Your task to perform on an android device: Search for pizza restaurants on Maps Image 0: 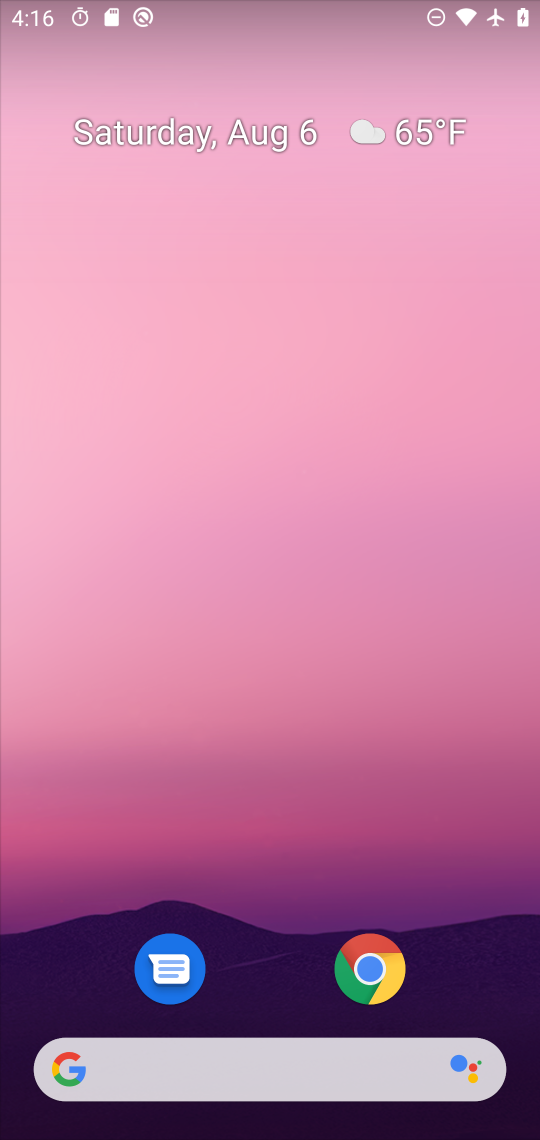
Step 0: press home button
Your task to perform on an android device: Search for pizza restaurants on Maps Image 1: 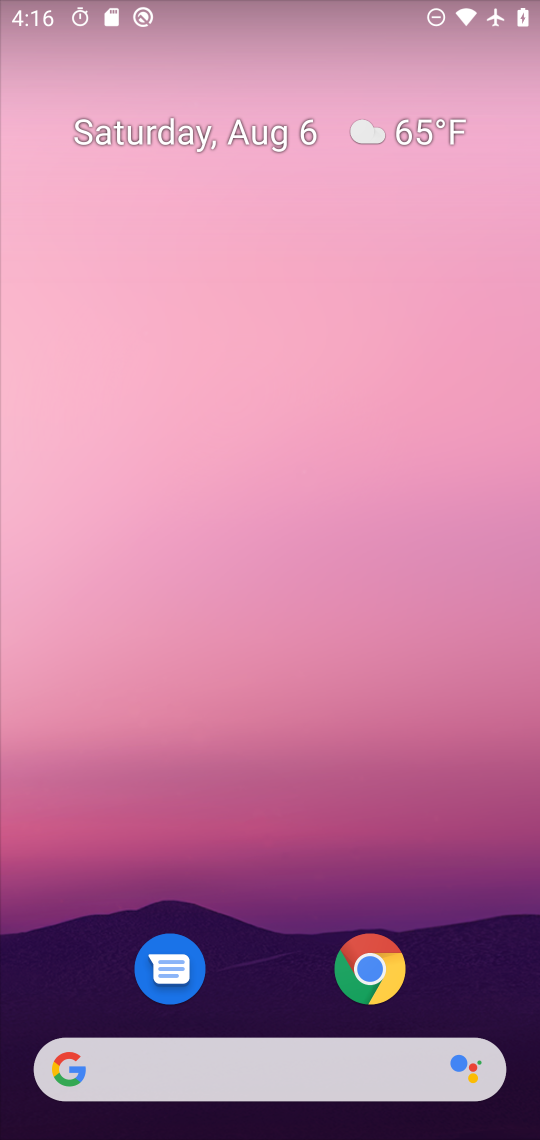
Step 1: click (83, 1062)
Your task to perform on an android device: Search for pizza restaurants on Maps Image 2: 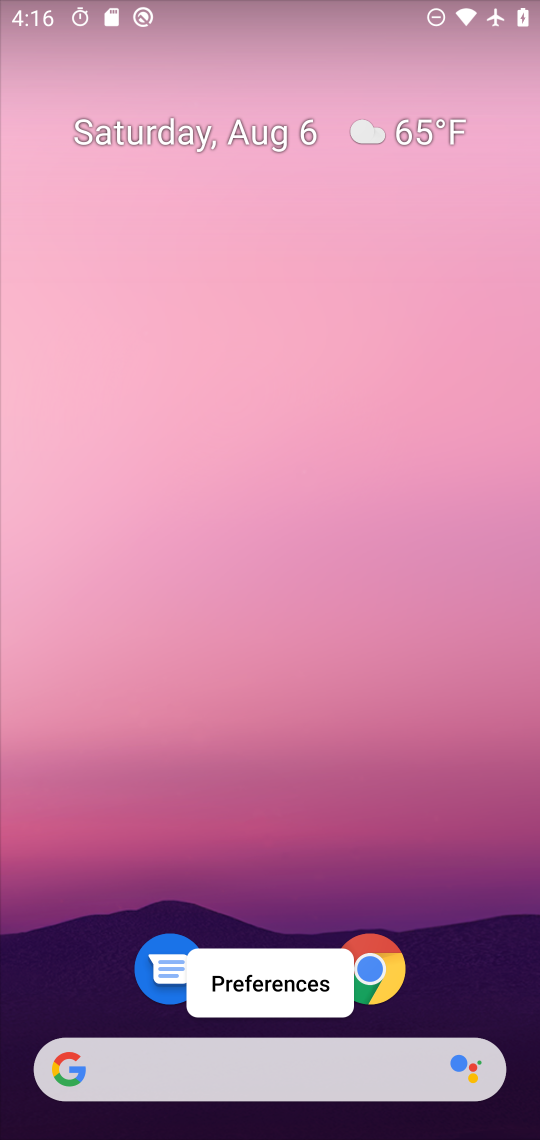
Step 2: click (62, 1064)
Your task to perform on an android device: Search for pizza restaurants on Maps Image 3: 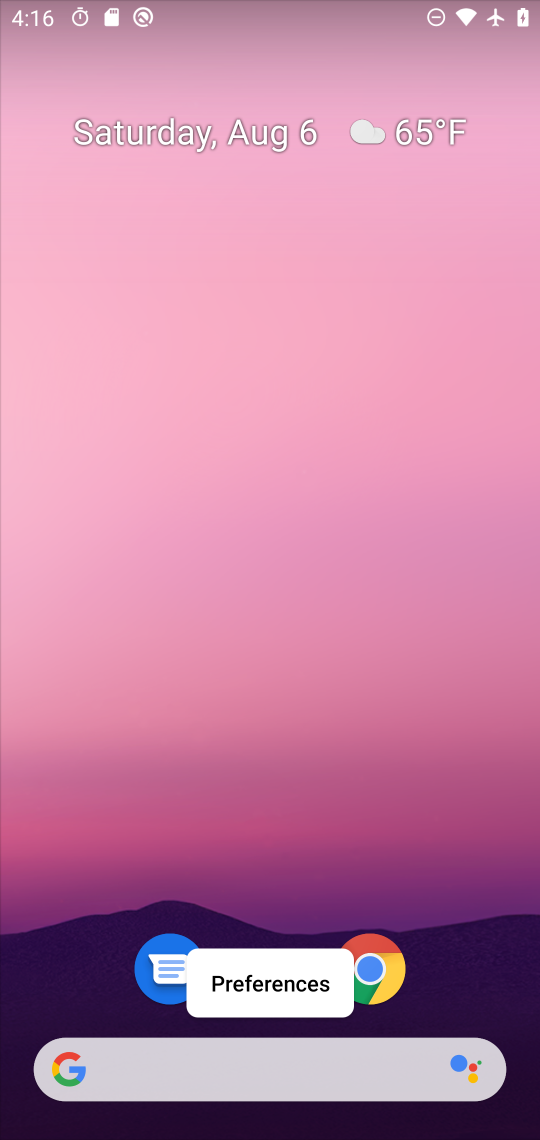
Step 3: click (62, 1068)
Your task to perform on an android device: Search for pizza restaurants on Maps Image 4: 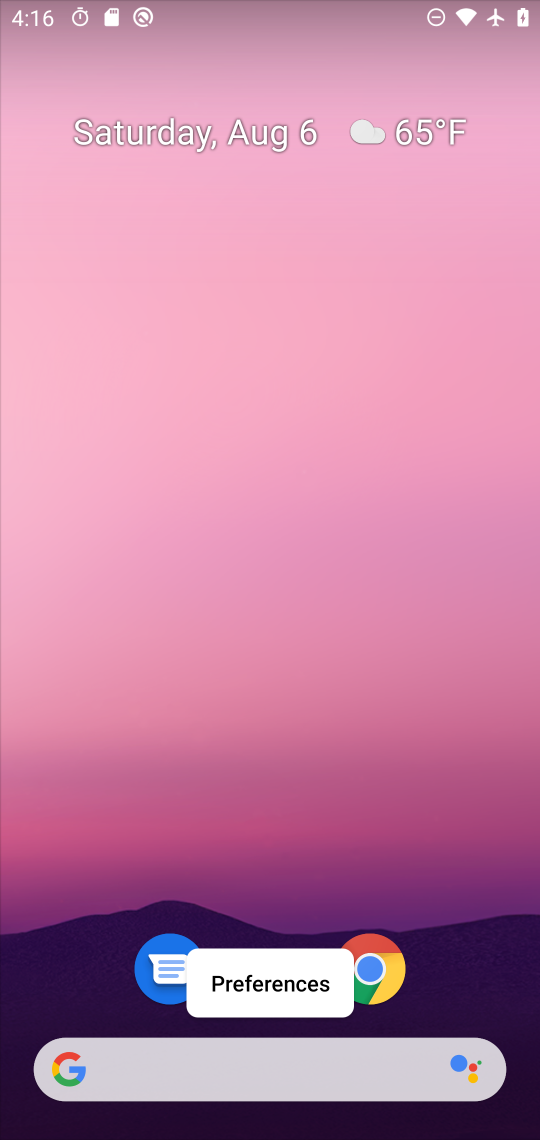
Step 4: click (67, 1078)
Your task to perform on an android device: Search for pizza restaurants on Maps Image 5: 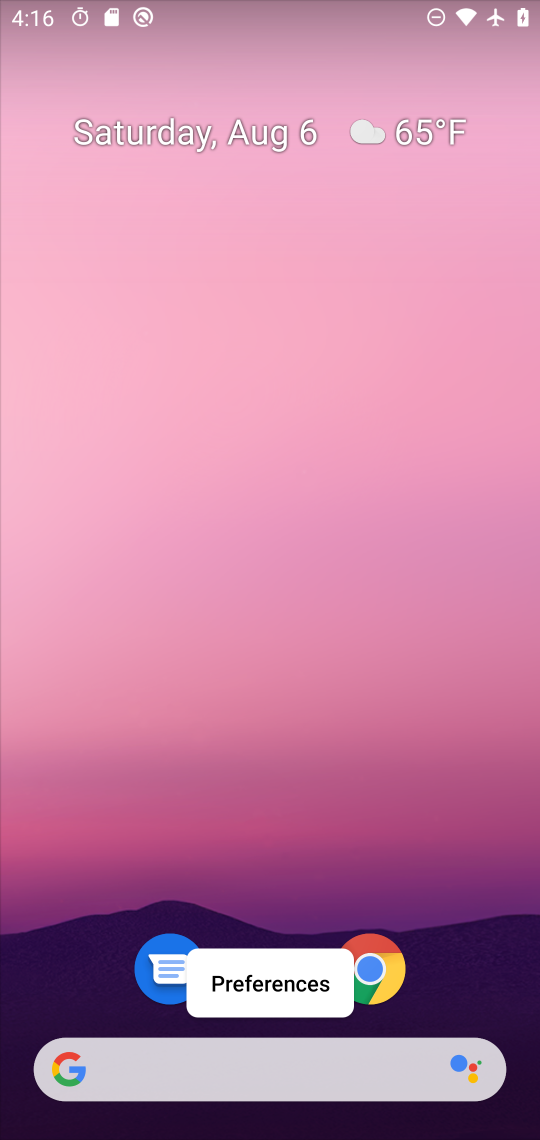
Step 5: click (69, 1078)
Your task to perform on an android device: Search for pizza restaurants on Maps Image 6: 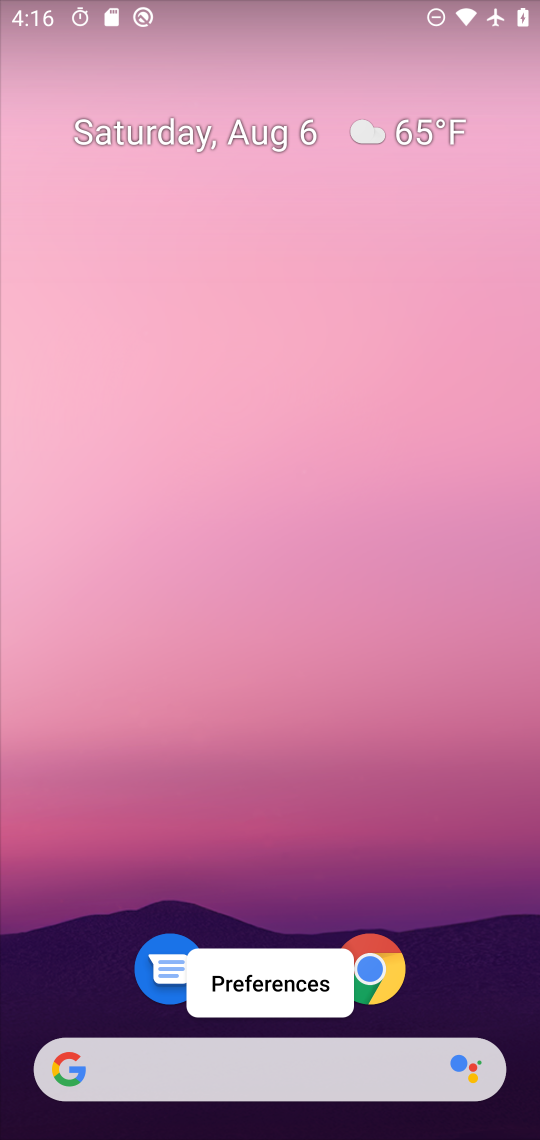
Step 6: drag from (278, 924) to (284, 204)
Your task to perform on an android device: Search for pizza restaurants on Maps Image 7: 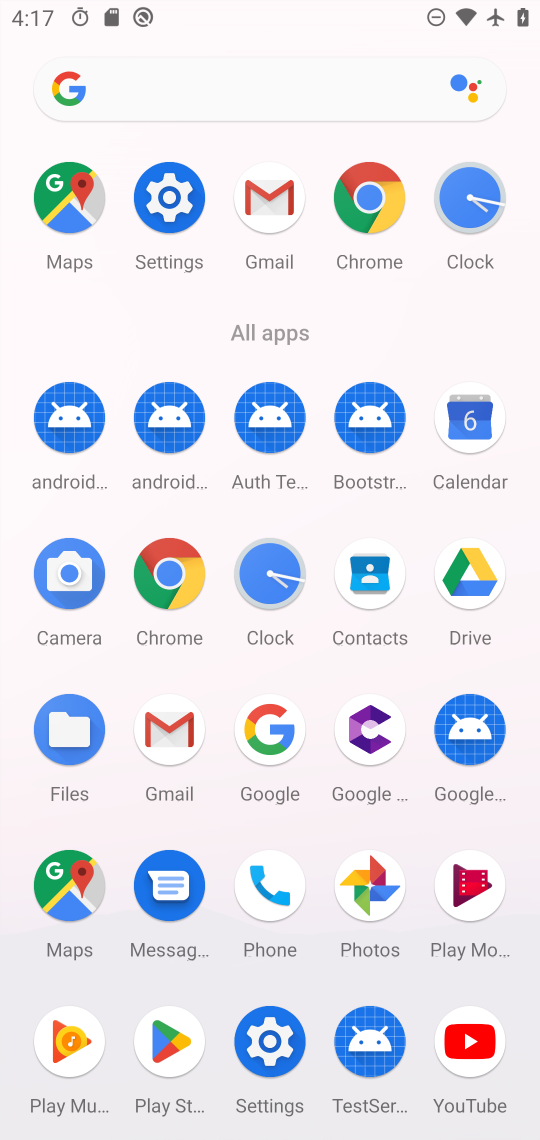
Step 7: drag from (220, 969) to (313, 381)
Your task to perform on an android device: Search for pizza restaurants on Maps Image 8: 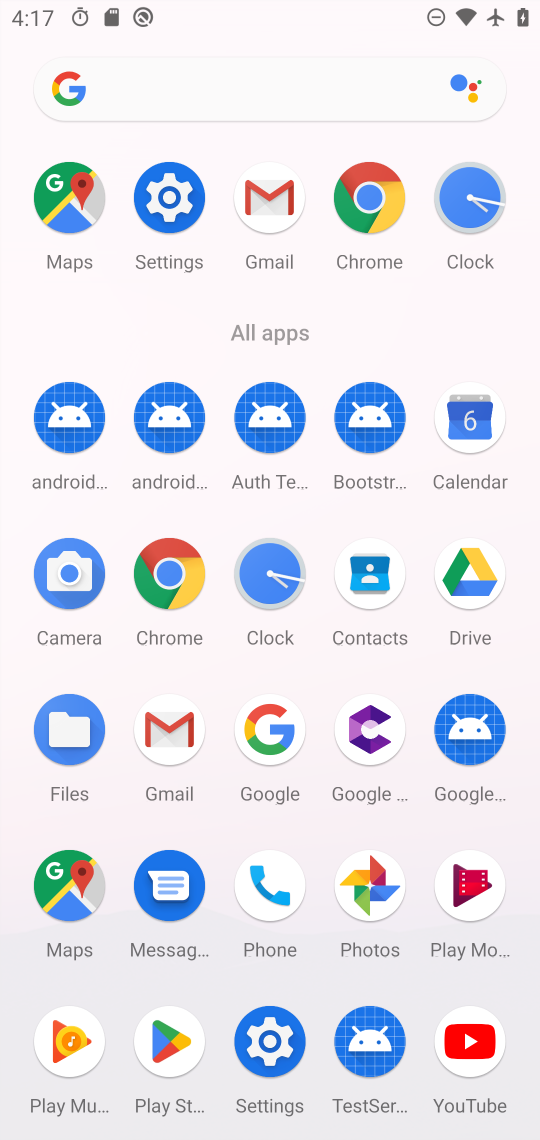
Step 8: drag from (324, 993) to (287, 496)
Your task to perform on an android device: Search for pizza restaurants on Maps Image 9: 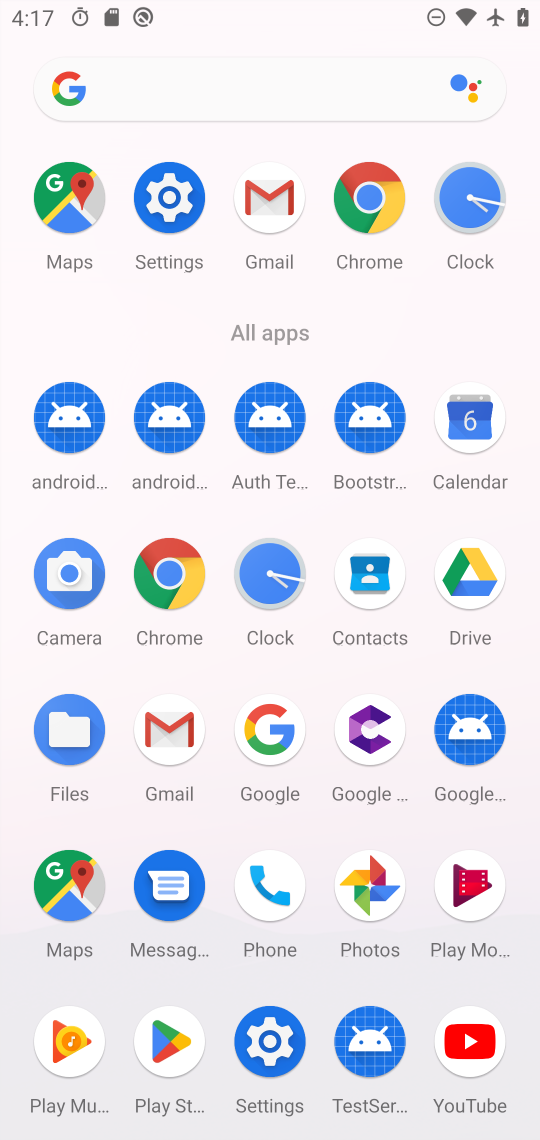
Step 9: drag from (317, 976) to (333, 576)
Your task to perform on an android device: Search for pizza restaurants on Maps Image 10: 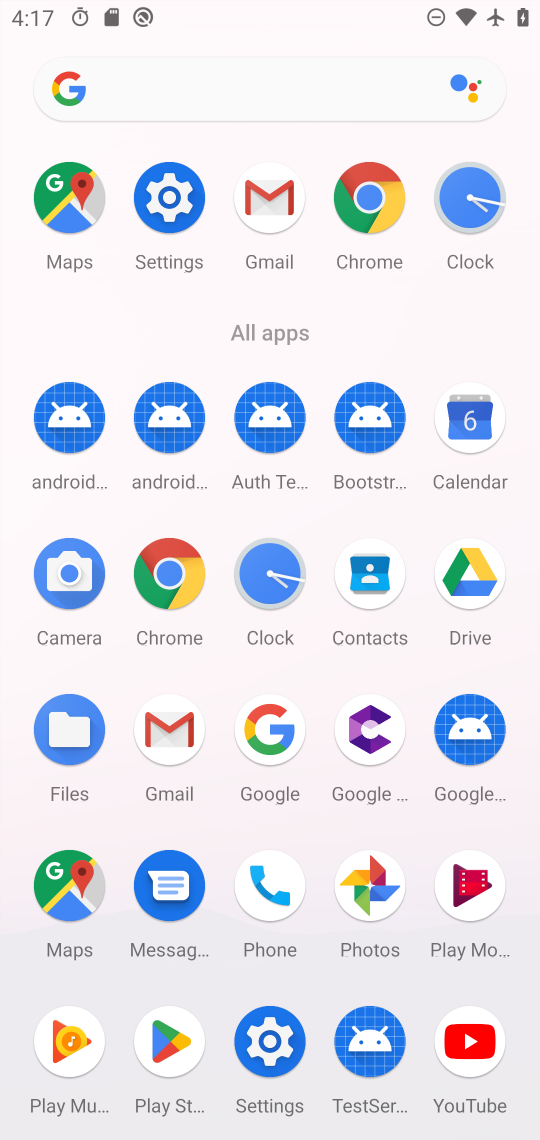
Step 10: click (62, 887)
Your task to perform on an android device: Search for pizza restaurants on Maps Image 11: 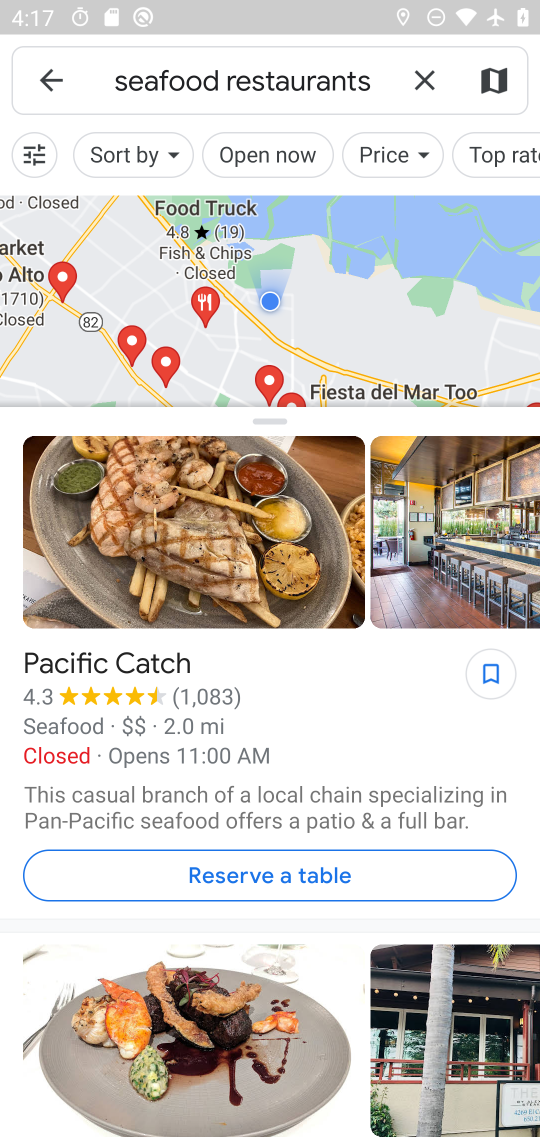
Step 11: click (423, 68)
Your task to perform on an android device: Search for pizza restaurants on Maps Image 12: 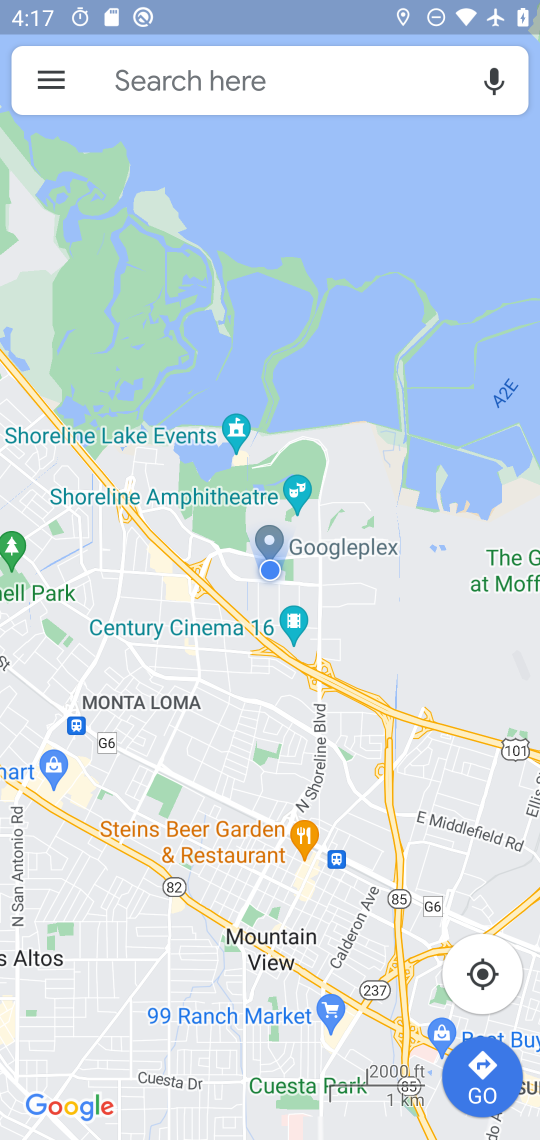
Step 12: type "pizza restaurants"
Your task to perform on an android device: Search for pizza restaurants on Maps Image 13: 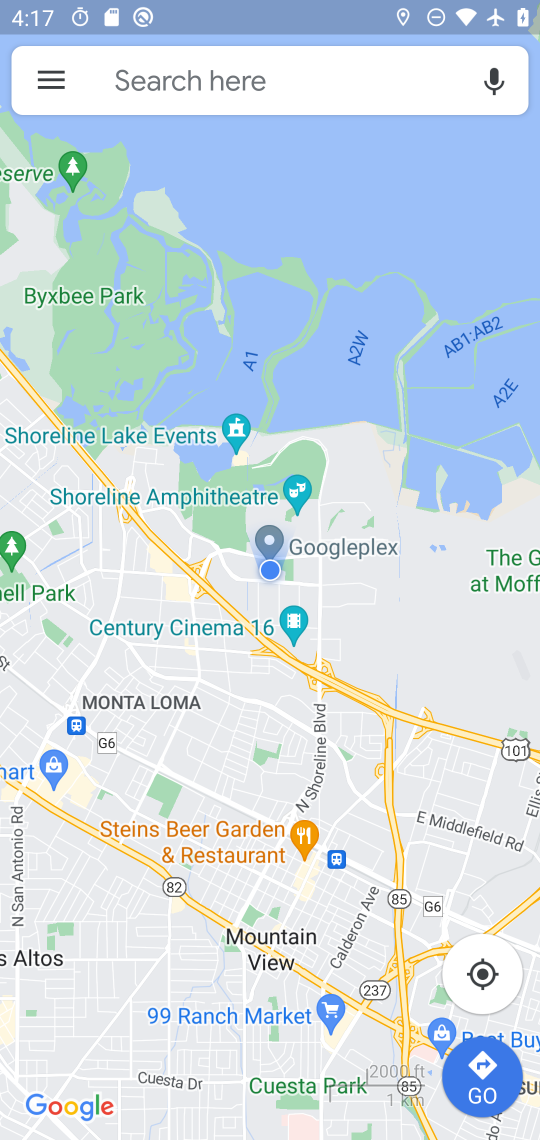
Step 13: click (291, 76)
Your task to perform on an android device: Search for pizza restaurants on Maps Image 14: 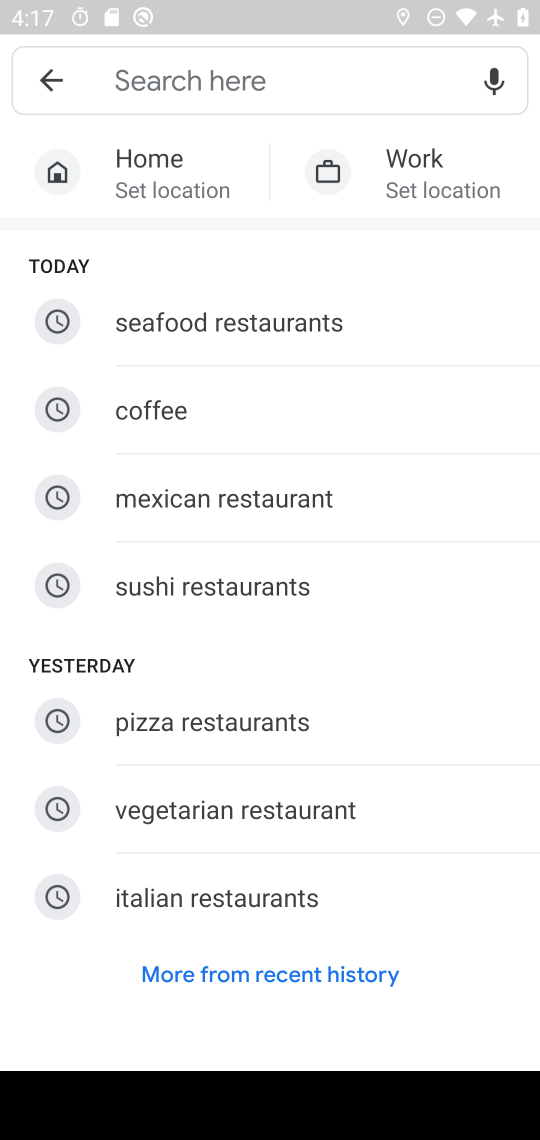
Step 14: click (211, 721)
Your task to perform on an android device: Search for pizza restaurants on Maps Image 15: 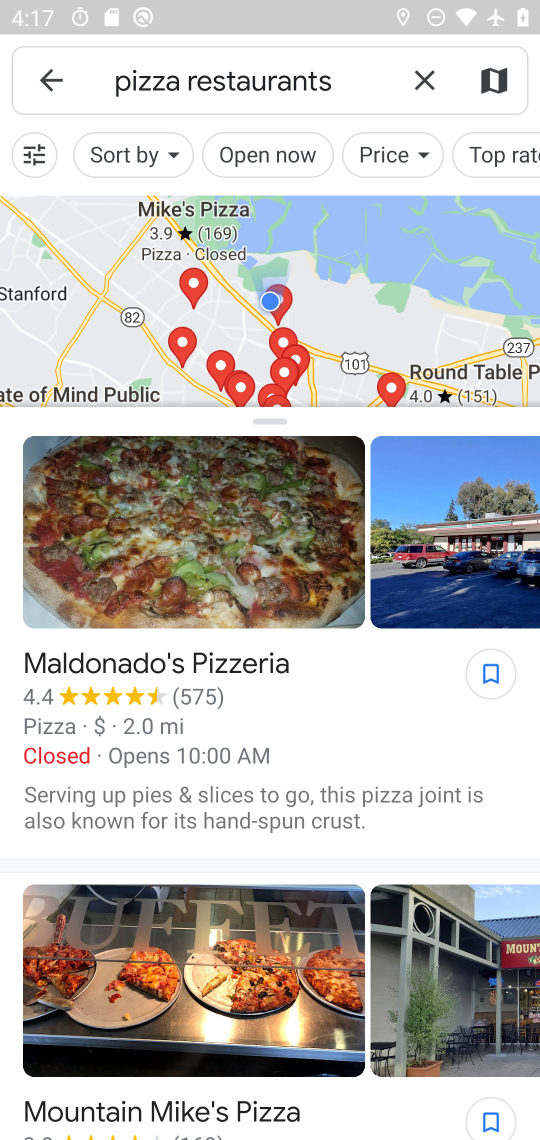
Step 15: task complete